Your task to perform on an android device: Search for sushi restaurants on Maps Image 0: 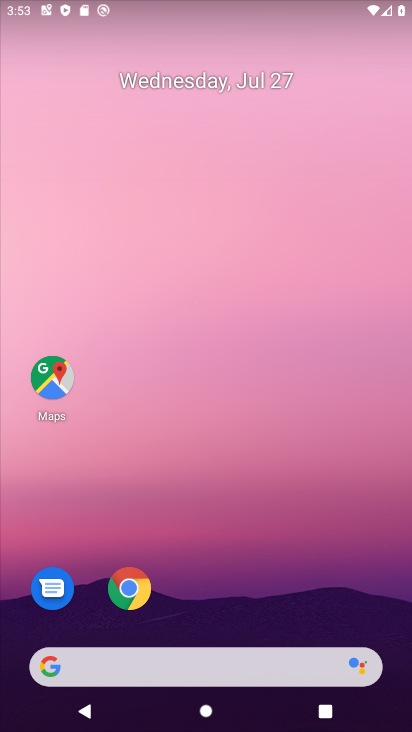
Step 0: click (224, 611)
Your task to perform on an android device: Search for sushi restaurants on Maps Image 1: 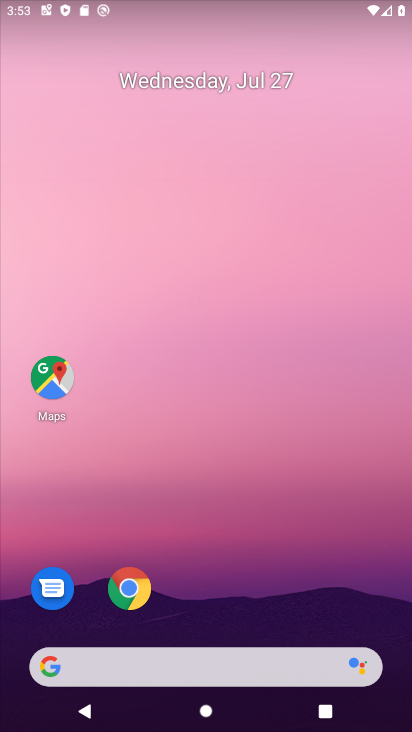
Step 1: drag from (322, 622) to (278, 227)
Your task to perform on an android device: Search for sushi restaurants on Maps Image 2: 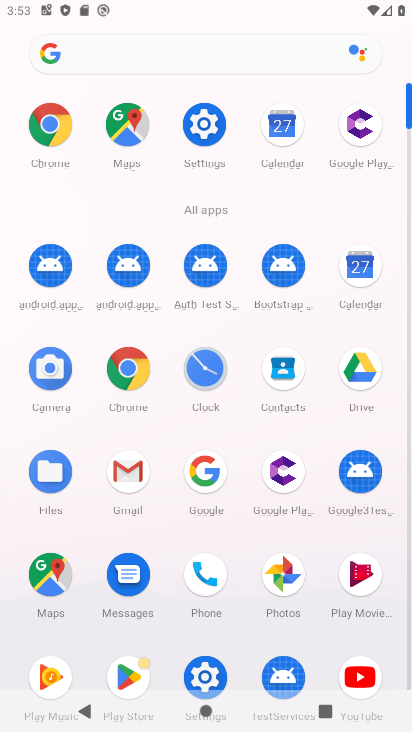
Step 2: click (133, 137)
Your task to perform on an android device: Search for sushi restaurants on Maps Image 3: 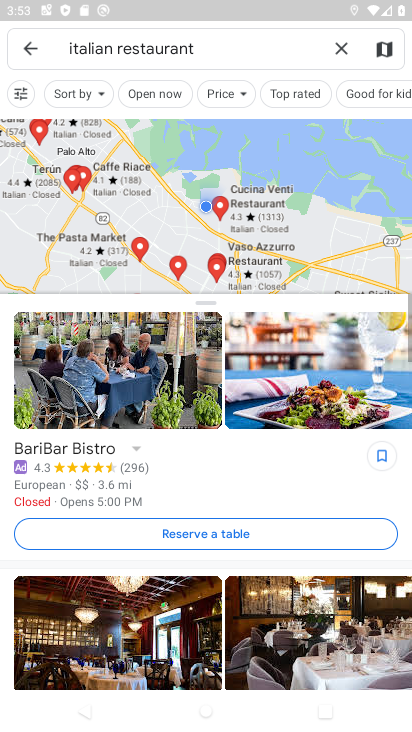
Step 3: click (25, 50)
Your task to perform on an android device: Search for sushi restaurants on Maps Image 4: 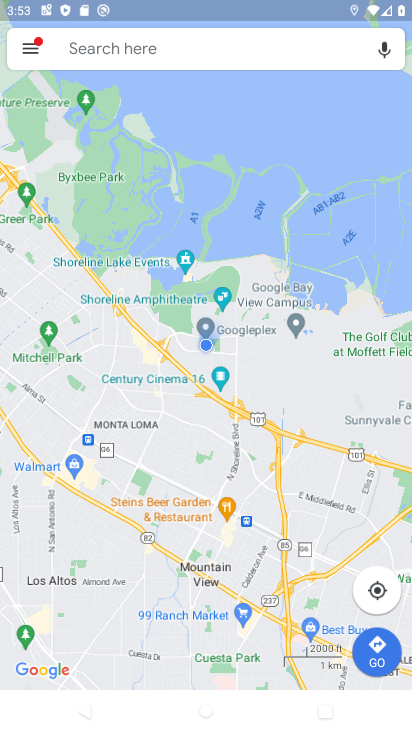
Step 4: click (116, 45)
Your task to perform on an android device: Search for sushi restaurants on Maps Image 5: 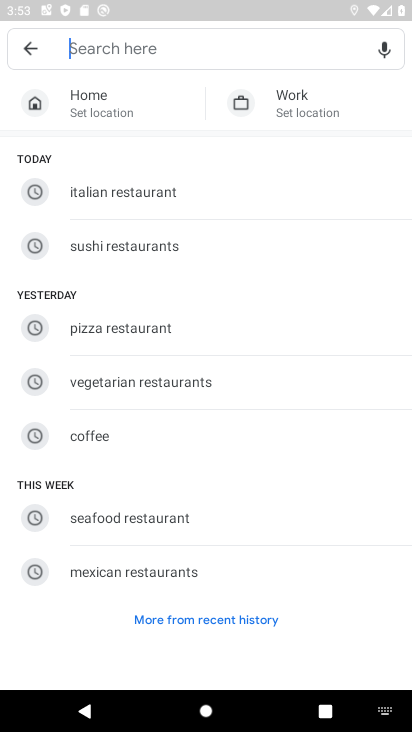
Step 5: click (150, 249)
Your task to perform on an android device: Search for sushi restaurants on Maps Image 6: 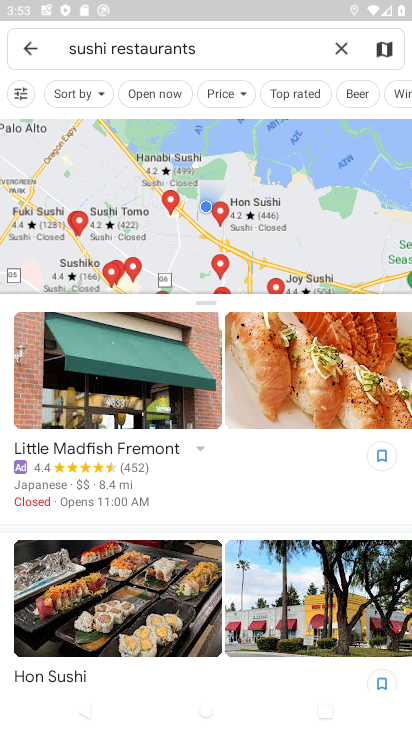
Step 6: task complete